Your task to perform on an android device: Open Google Maps and go to "Timeline" Image 0: 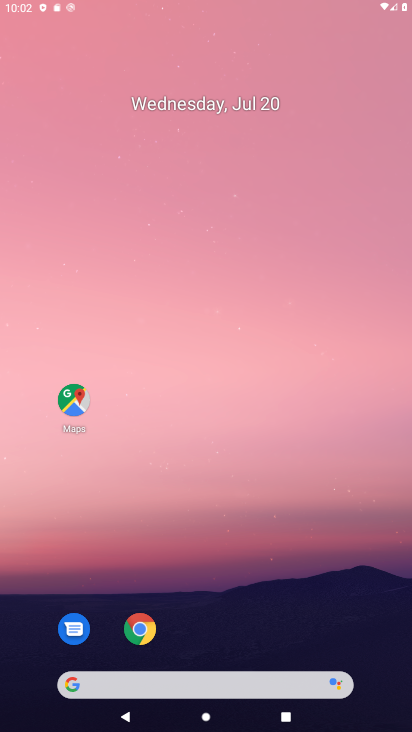
Step 0: click (126, 67)
Your task to perform on an android device: Open Google Maps and go to "Timeline" Image 1: 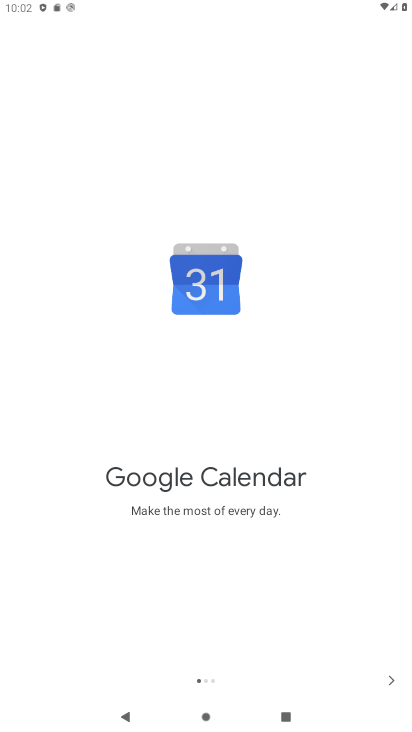
Step 1: drag from (239, 524) to (302, 160)
Your task to perform on an android device: Open Google Maps and go to "Timeline" Image 2: 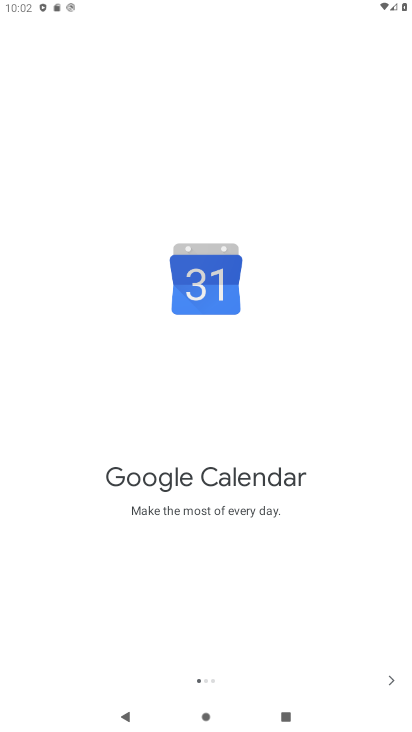
Step 2: press home button
Your task to perform on an android device: Open Google Maps and go to "Timeline" Image 3: 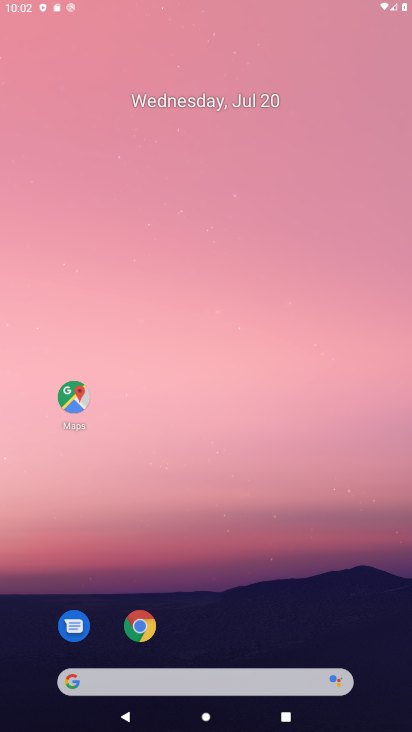
Step 3: drag from (243, 248) to (249, 167)
Your task to perform on an android device: Open Google Maps and go to "Timeline" Image 4: 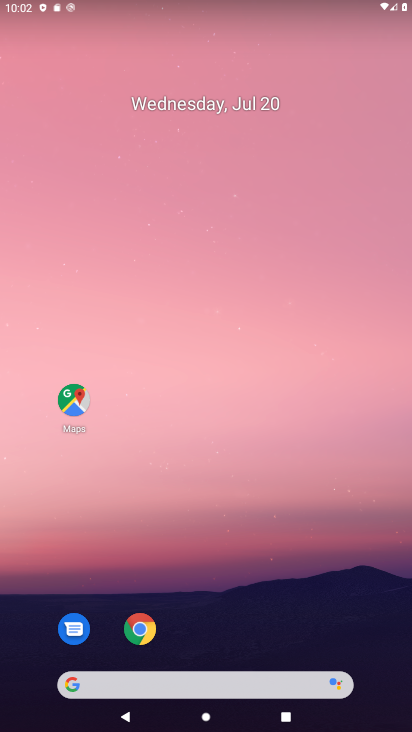
Step 4: drag from (212, 573) to (244, 59)
Your task to perform on an android device: Open Google Maps and go to "Timeline" Image 5: 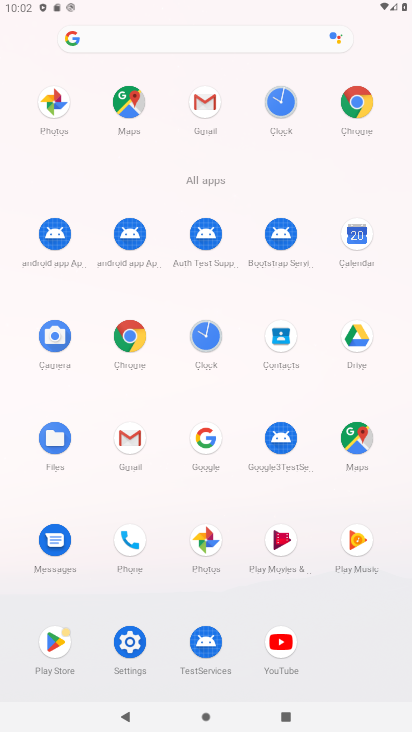
Step 5: click (351, 443)
Your task to perform on an android device: Open Google Maps and go to "Timeline" Image 6: 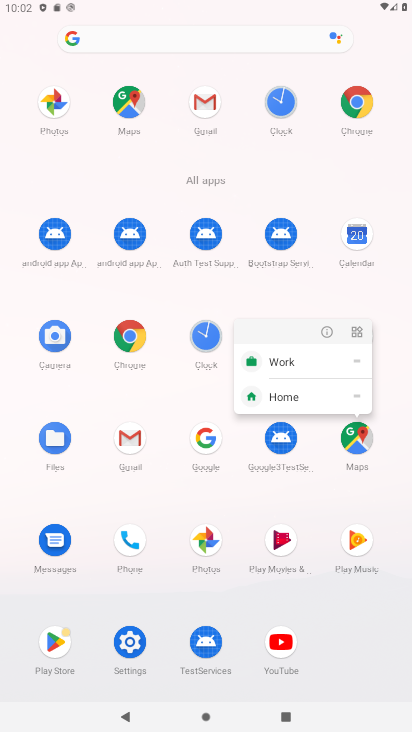
Step 6: click (328, 331)
Your task to perform on an android device: Open Google Maps and go to "Timeline" Image 7: 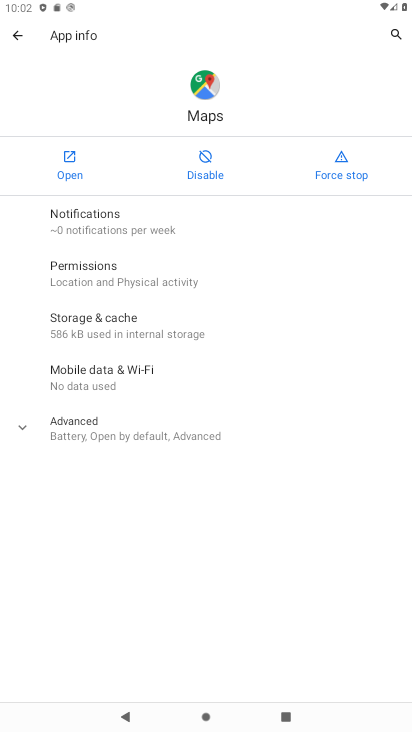
Step 7: click (74, 164)
Your task to perform on an android device: Open Google Maps and go to "Timeline" Image 8: 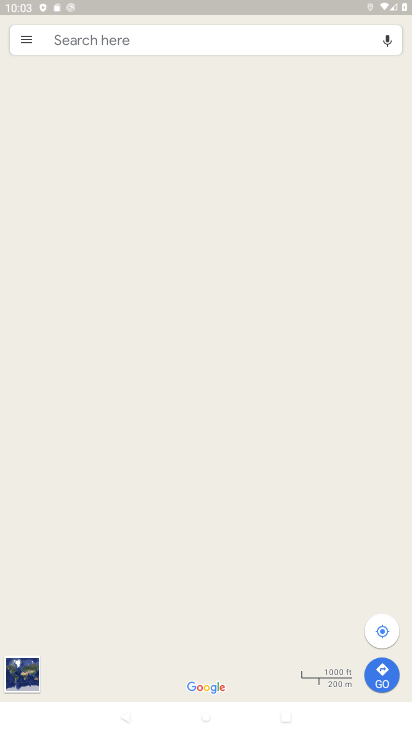
Step 8: click (31, 35)
Your task to perform on an android device: Open Google Maps and go to "Timeline" Image 9: 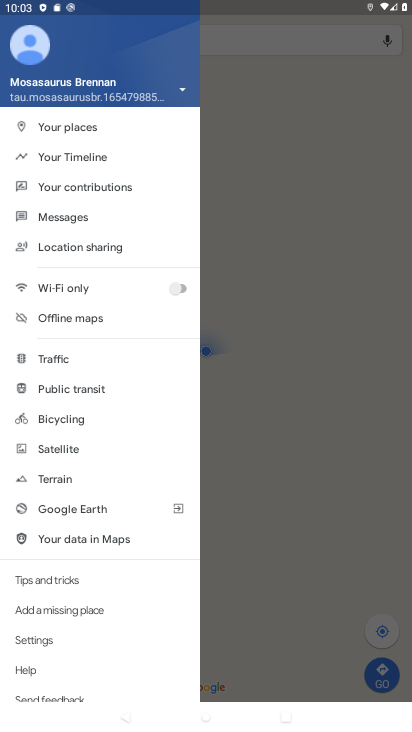
Step 9: click (87, 160)
Your task to perform on an android device: Open Google Maps and go to "Timeline" Image 10: 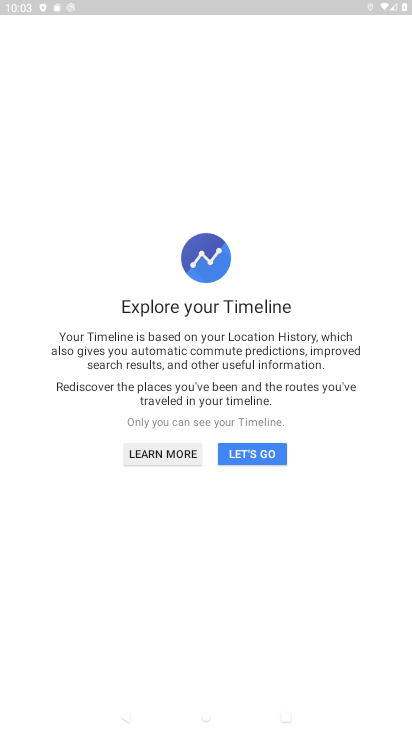
Step 10: drag from (242, 422) to (238, 171)
Your task to perform on an android device: Open Google Maps and go to "Timeline" Image 11: 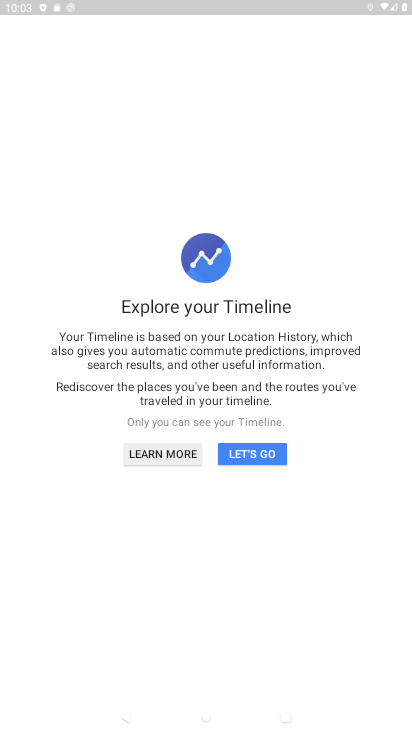
Step 11: click (240, 452)
Your task to perform on an android device: Open Google Maps and go to "Timeline" Image 12: 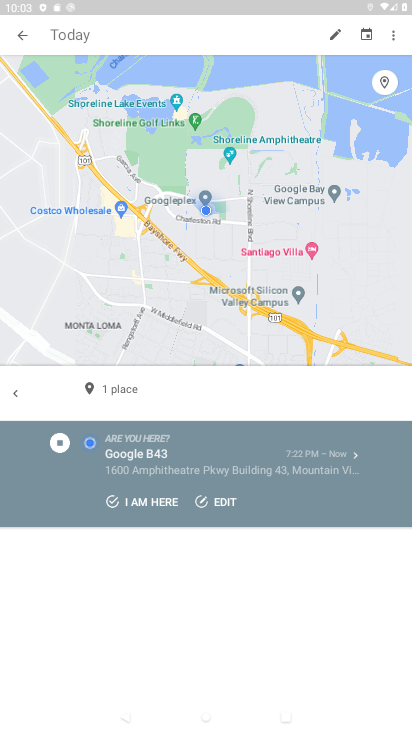
Step 12: task complete